Your task to perform on an android device: Go to network settings Image 0: 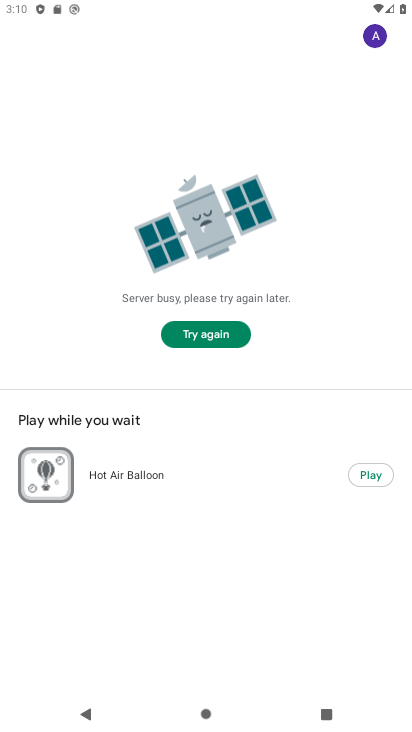
Step 0: press home button
Your task to perform on an android device: Go to network settings Image 1: 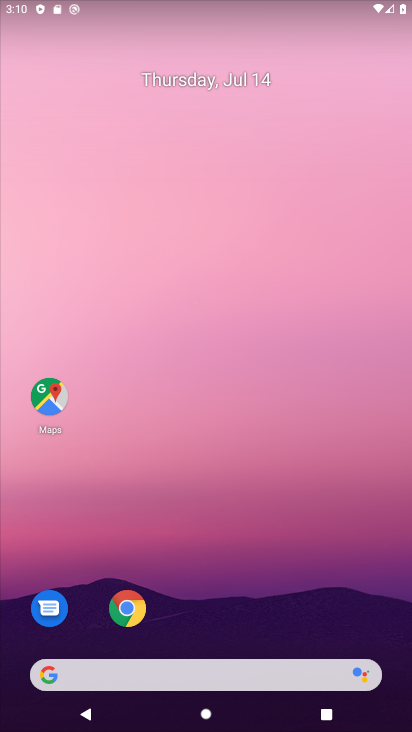
Step 1: drag from (174, 618) to (250, 195)
Your task to perform on an android device: Go to network settings Image 2: 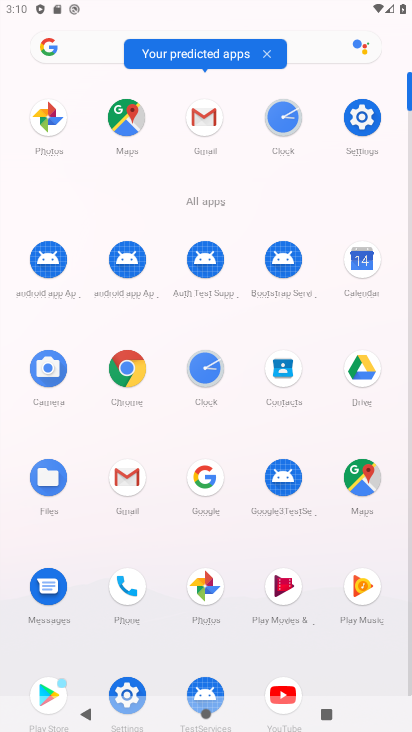
Step 2: click (129, 680)
Your task to perform on an android device: Go to network settings Image 3: 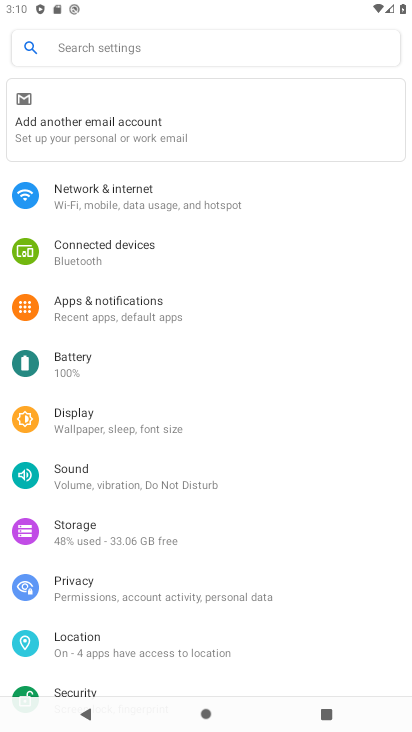
Step 3: click (151, 208)
Your task to perform on an android device: Go to network settings Image 4: 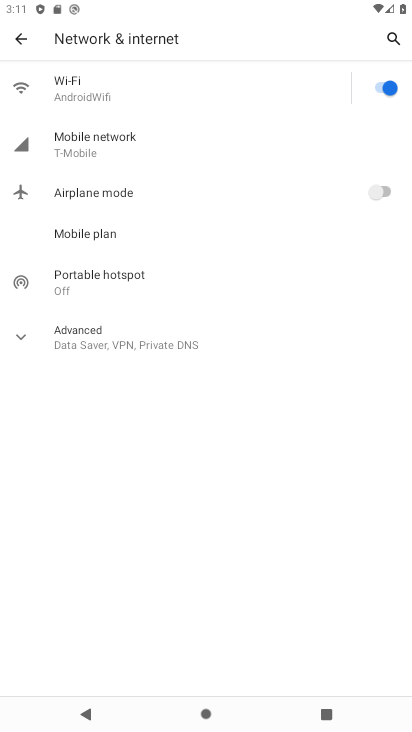
Step 4: click (186, 132)
Your task to perform on an android device: Go to network settings Image 5: 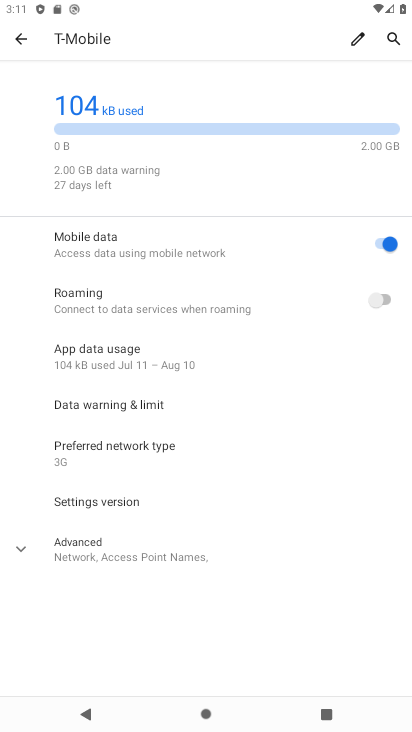
Step 5: task complete